Your task to perform on an android device: toggle priority inbox in the gmail app Image 0: 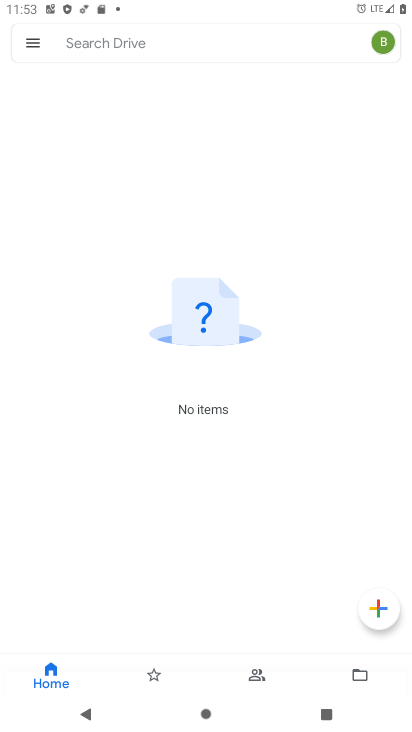
Step 0: press home button
Your task to perform on an android device: toggle priority inbox in the gmail app Image 1: 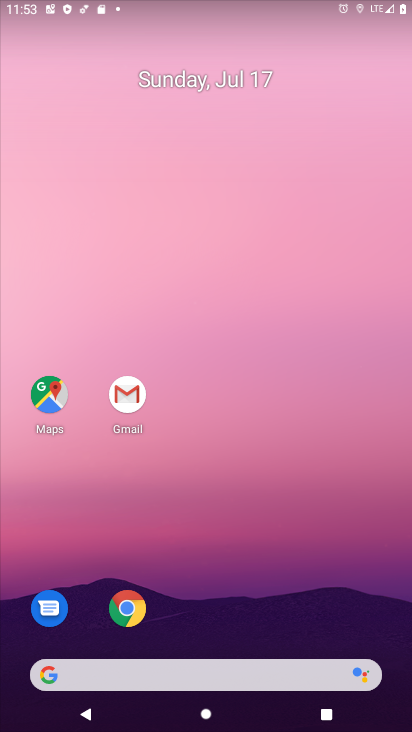
Step 1: drag from (200, 634) to (172, 55)
Your task to perform on an android device: toggle priority inbox in the gmail app Image 2: 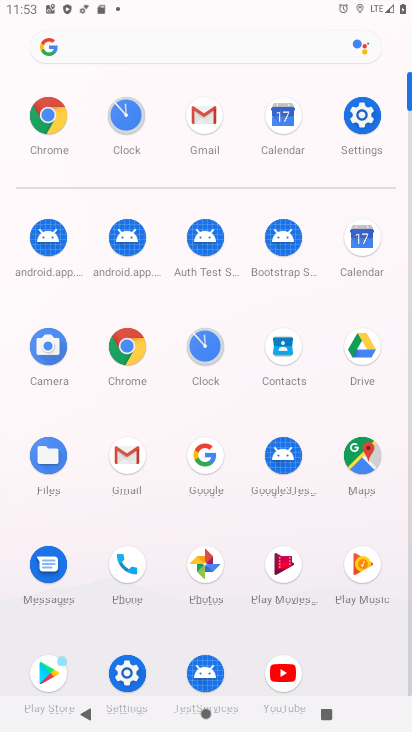
Step 2: click (113, 456)
Your task to perform on an android device: toggle priority inbox in the gmail app Image 3: 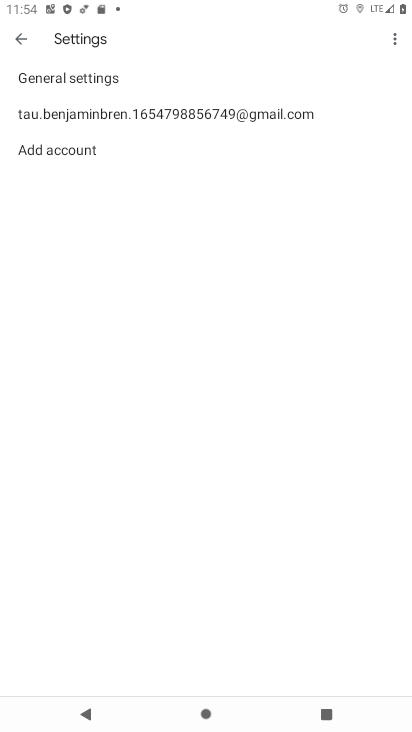
Step 3: click (60, 120)
Your task to perform on an android device: toggle priority inbox in the gmail app Image 4: 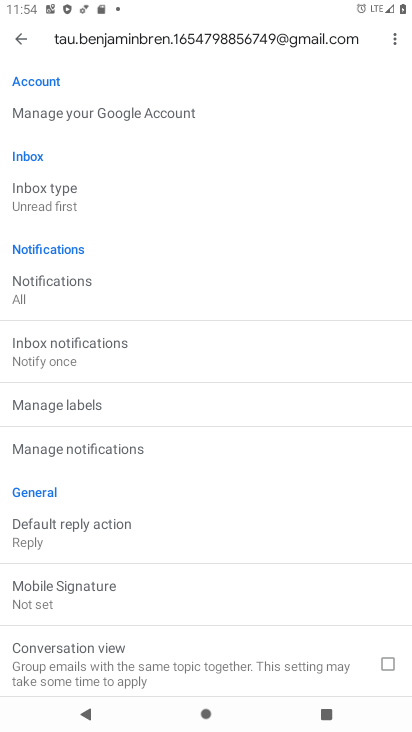
Step 4: click (51, 208)
Your task to perform on an android device: toggle priority inbox in the gmail app Image 5: 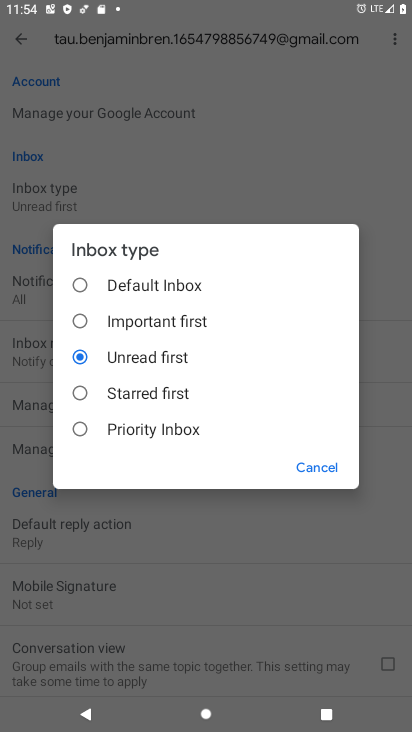
Step 5: click (124, 427)
Your task to perform on an android device: toggle priority inbox in the gmail app Image 6: 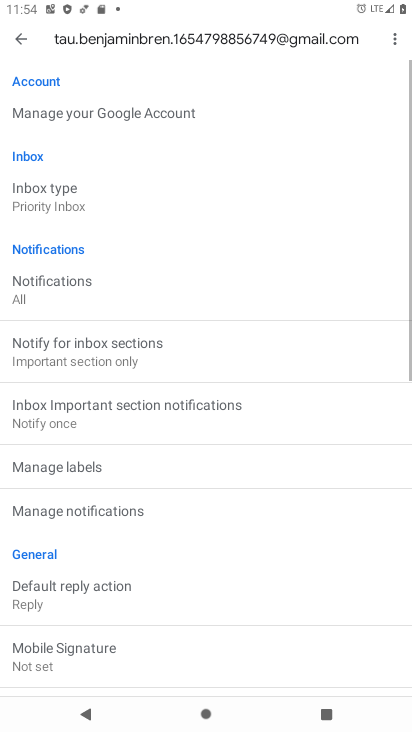
Step 6: task complete